Your task to perform on an android device: turn off notifications settings in the gmail app Image 0: 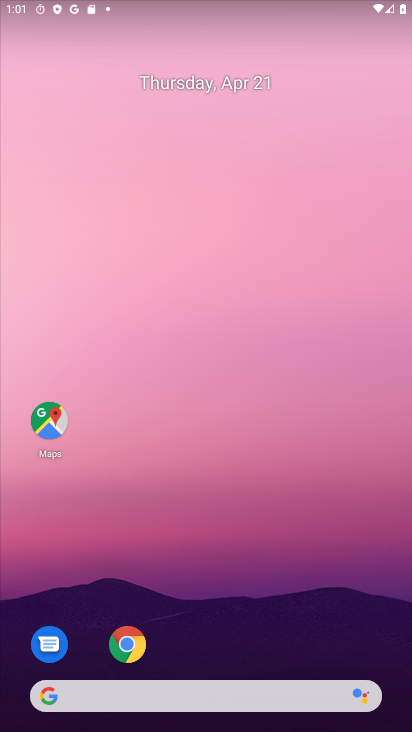
Step 0: drag from (309, 584) to (222, 136)
Your task to perform on an android device: turn off notifications settings in the gmail app Image 1: 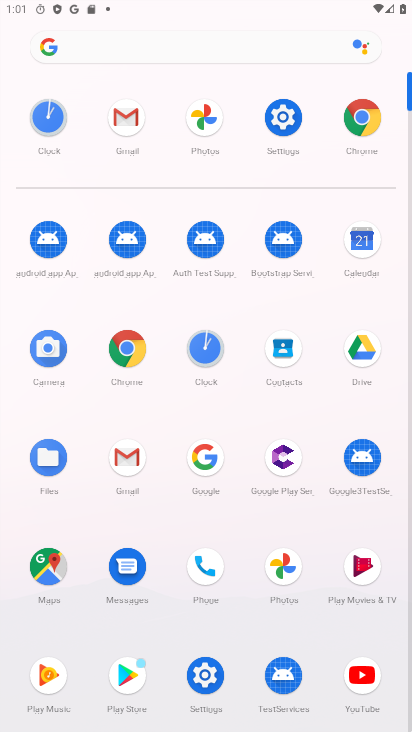
Step 1: click (136, 104)
Your task to perform on an android device: turn off notifications settings in the gmail app Image 2: 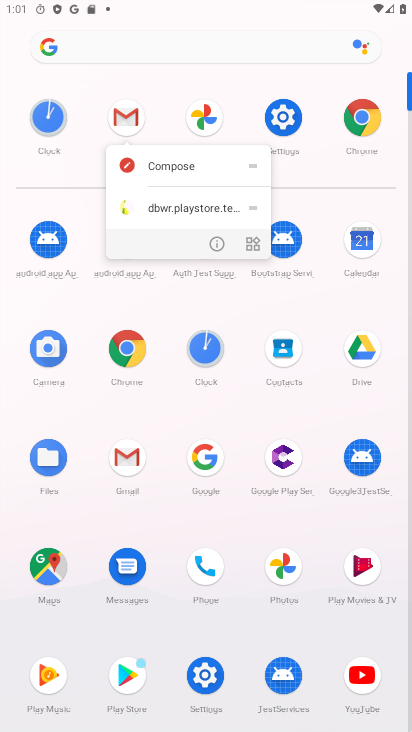
Step 2: click (127, 117)
Your task to perform on an android device: turn off notifications settings in the gmail app Image 3: 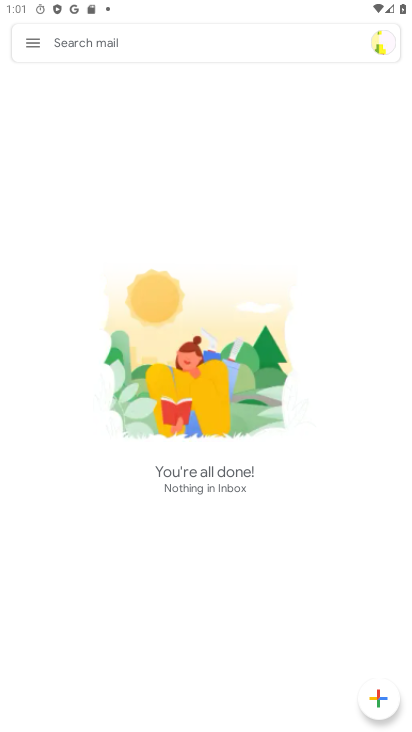
Step 3: click (35, 41)
Your task to perform on an android device: turn off notifications settings in the gmail app Image 4: 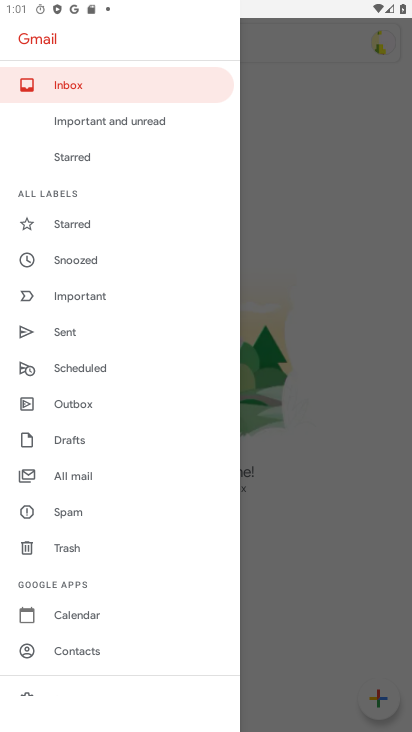
Step 4: drag from (185, 692) to (188, 271)
Your task to perform on an android device: turn off notifications settings in the gmail app Image 5: 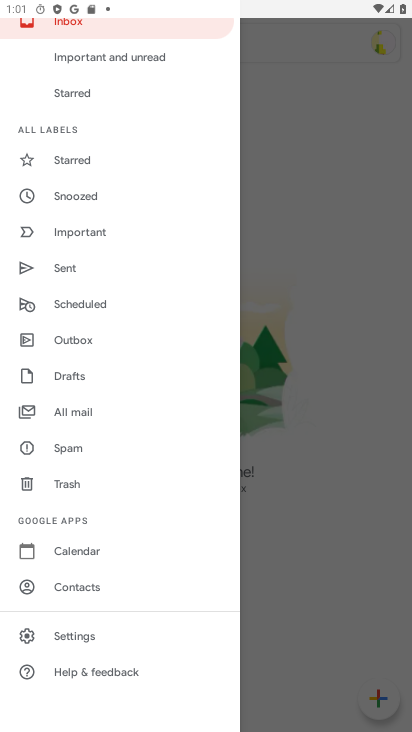
Step 5: click (191, 643)
Your task to perform on an android device: turn off notifications settings in the gmail app Image 6: 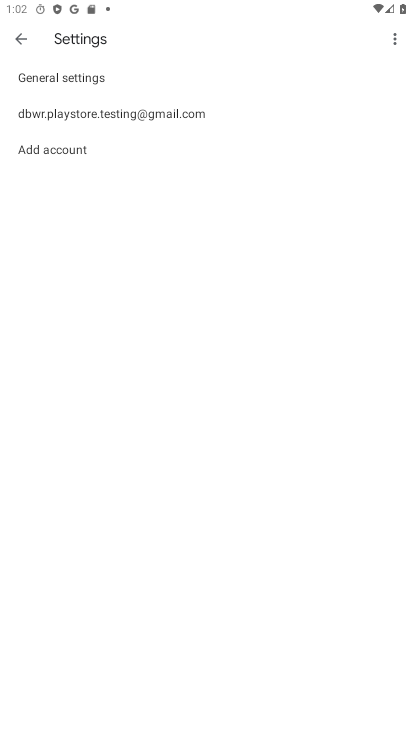
Step 6: click (282, 112)
Your task to perform on an android device: turn off notifications settings in the gmail app Image 7: 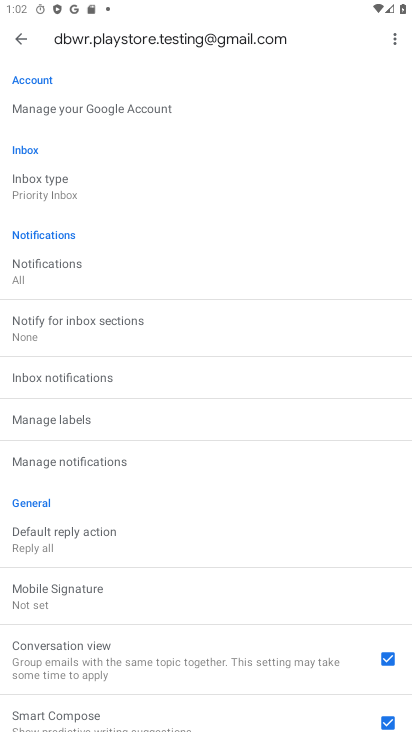
Step 7: click (249, 462)
Your task to perform on an android device: turn off notifications settings in the gmail app Image 8: 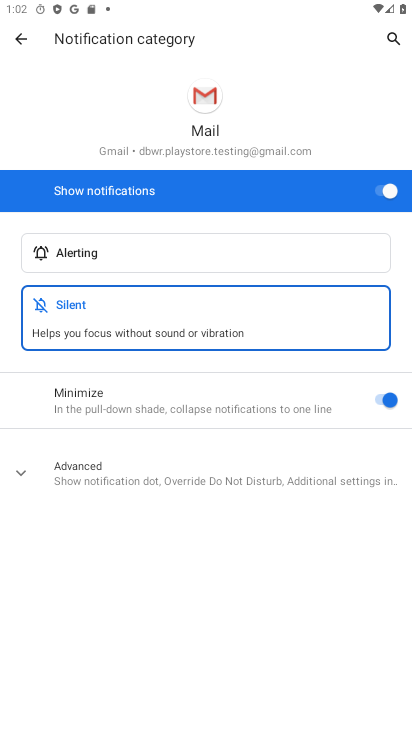
Step 8: click (392, 398)
Your task to perform on an android device: turn off notifications settings in the gmail app Image 9: 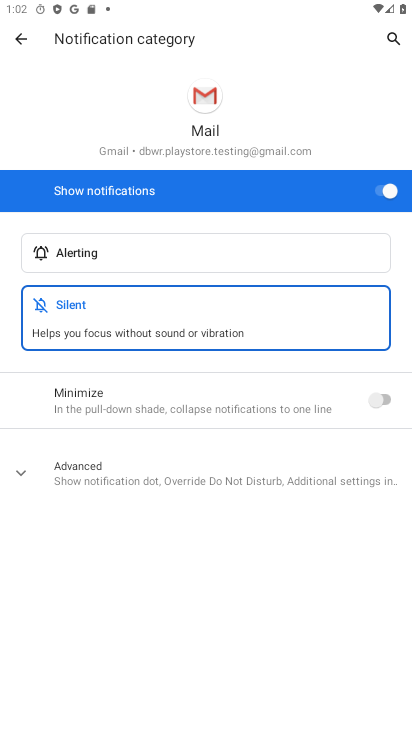
Step 9: task complete